Your task to perform on an android device: turn off smart reply in the gmail app Image 0: 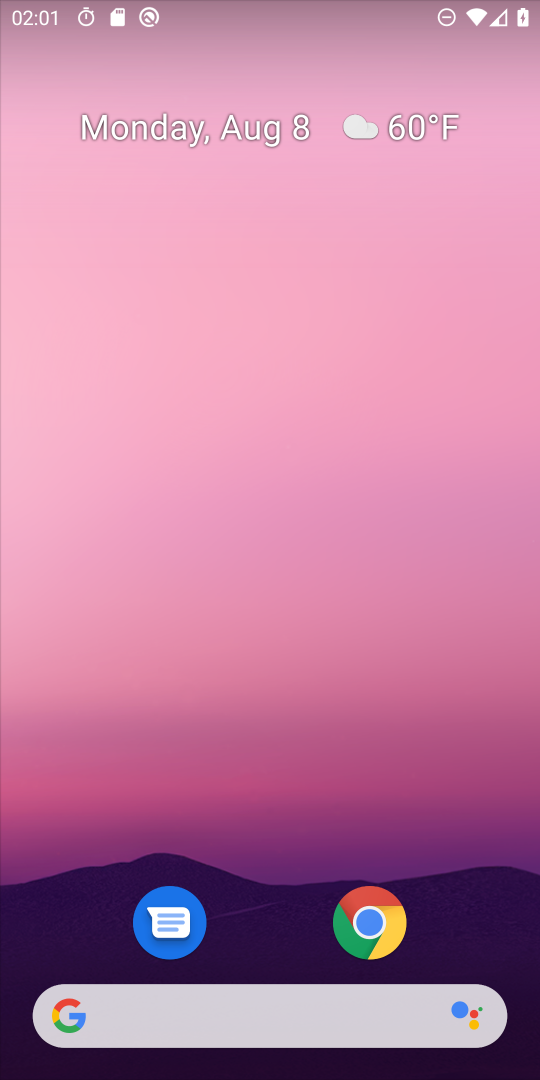
Step 0: drag from (392, 237) to (394, 84)
Your task to perform on an android device: turn off smart reply in the gmail app Image 1: 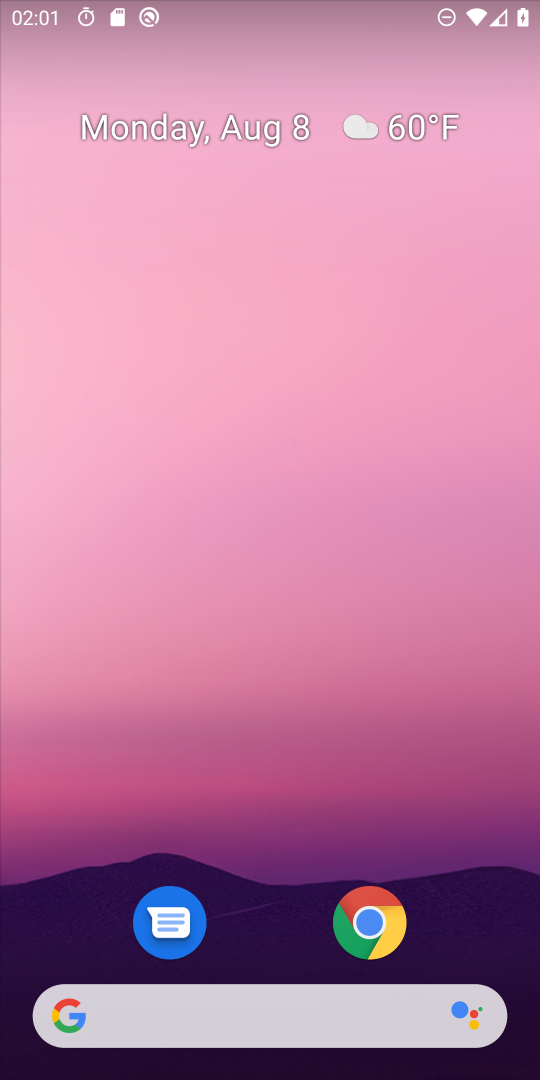
Step 1: drag from (431, 717) to (383, 165)
Your task to perform on an android device: turn off smart reply in the gmail app Image 2: 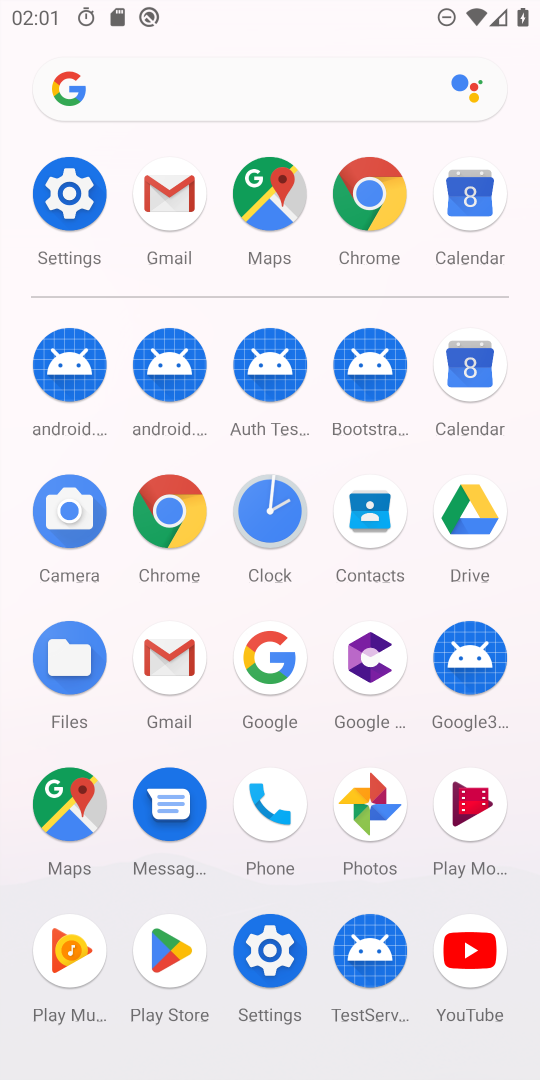
Step 2: click (176, 662)
Your task to perform on an android device: turn off smart reply in the gmail app Image 3: 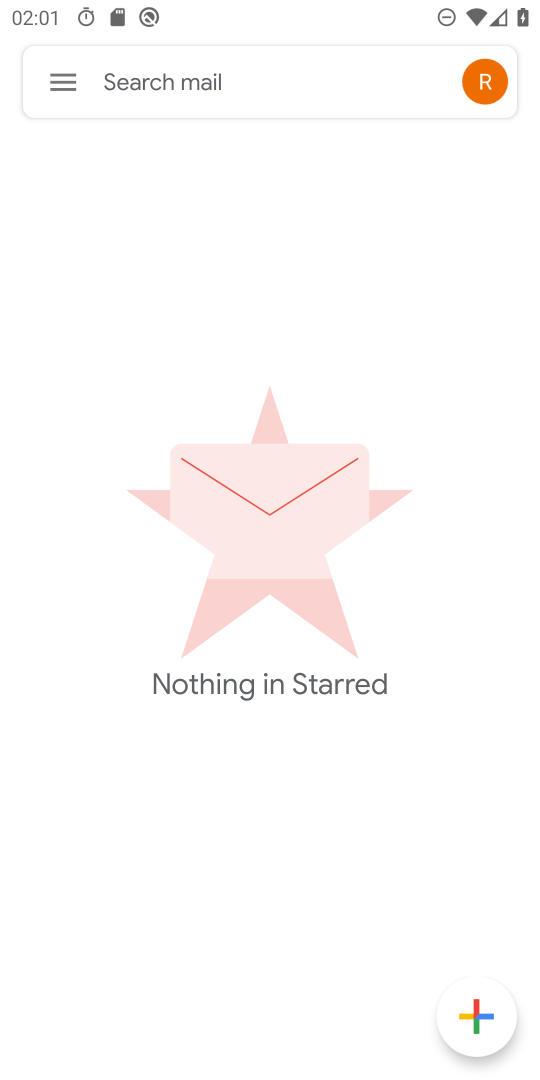
Step 3: click (52, 71)
Your task to perform on an android device: turn off smart reply in the gmail app Image 4: 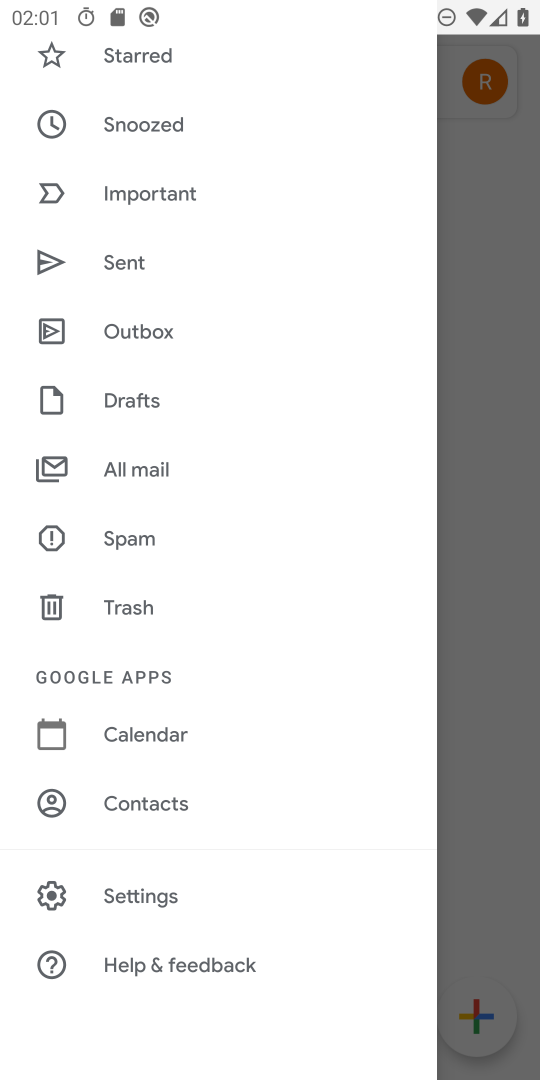
Step 4: click (148, 898)
Your task to perform on an android device: turn off smart reply in the gmail app Image 5: 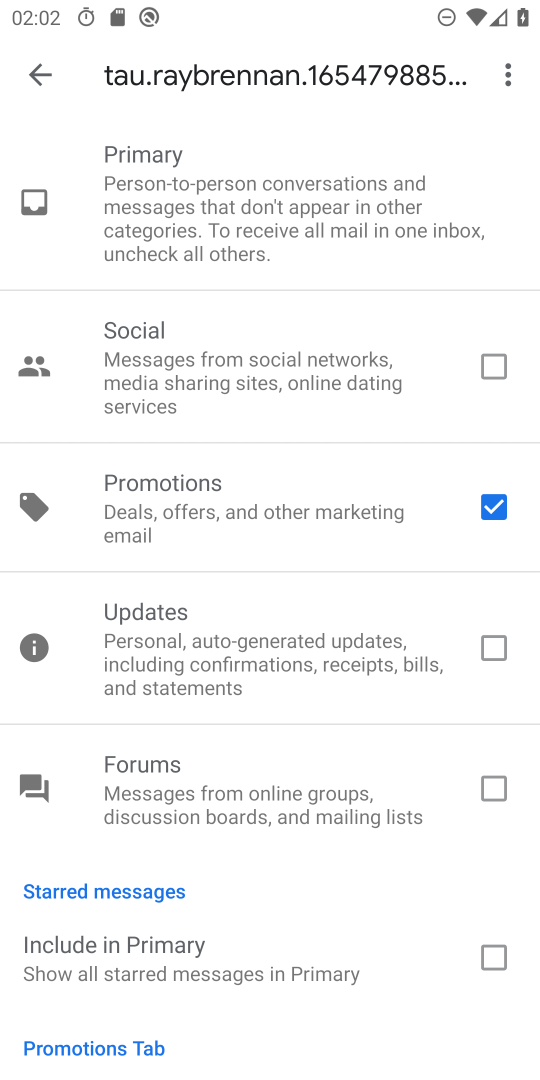
Step 5: drag from (339, 894) to (361, 218)
Your task to perform on an android device: turn off smart reply in the gmail app Image 6: 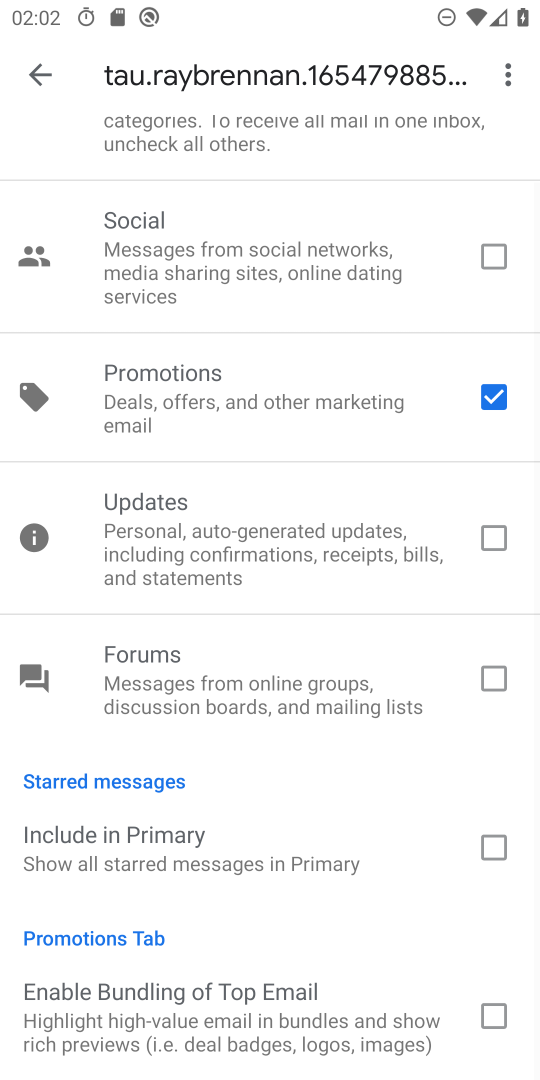
Step 6: click (52, 69)
Your task to perform on an android device: turn off smart reply in the gmail app Image 7: 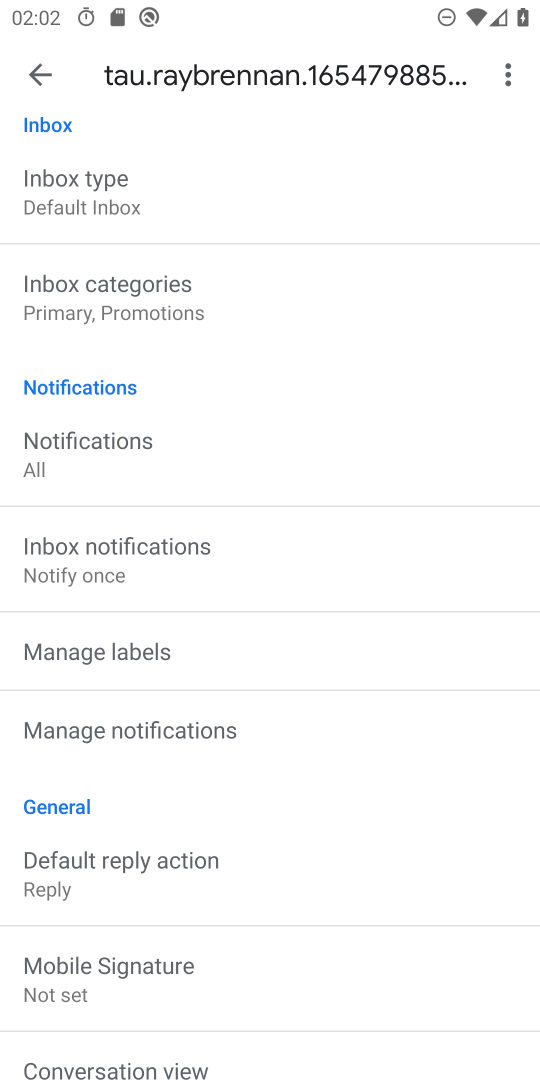
Step 7: drag from (368, 937) to (415, 235)
Your task to perform on an android device: turn off smart reply in the gmail app Image 8: 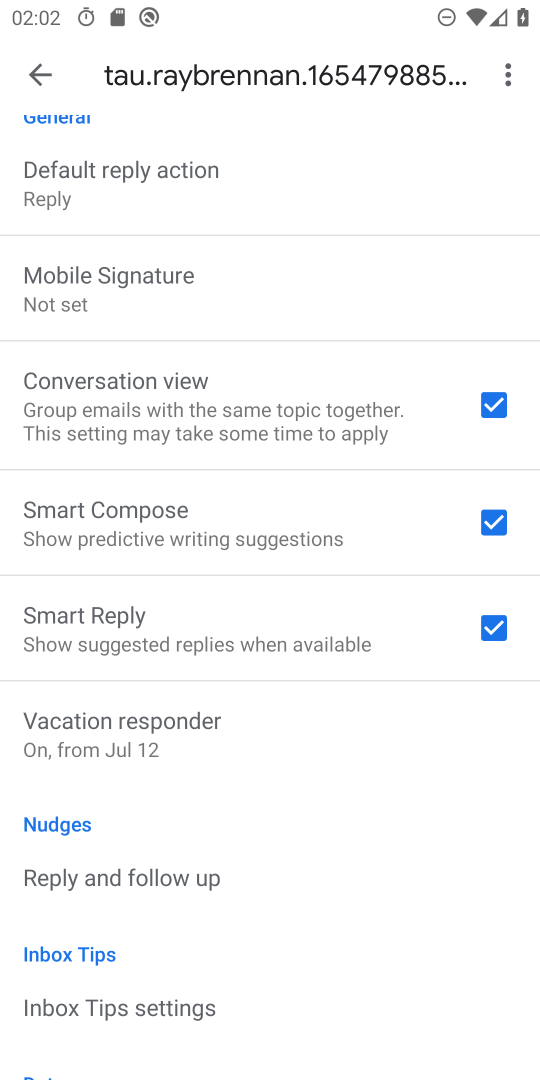
Step 8: click (495, 625)
Your task to perform on an android device: turn off smart reply in the gmail app Image 9: 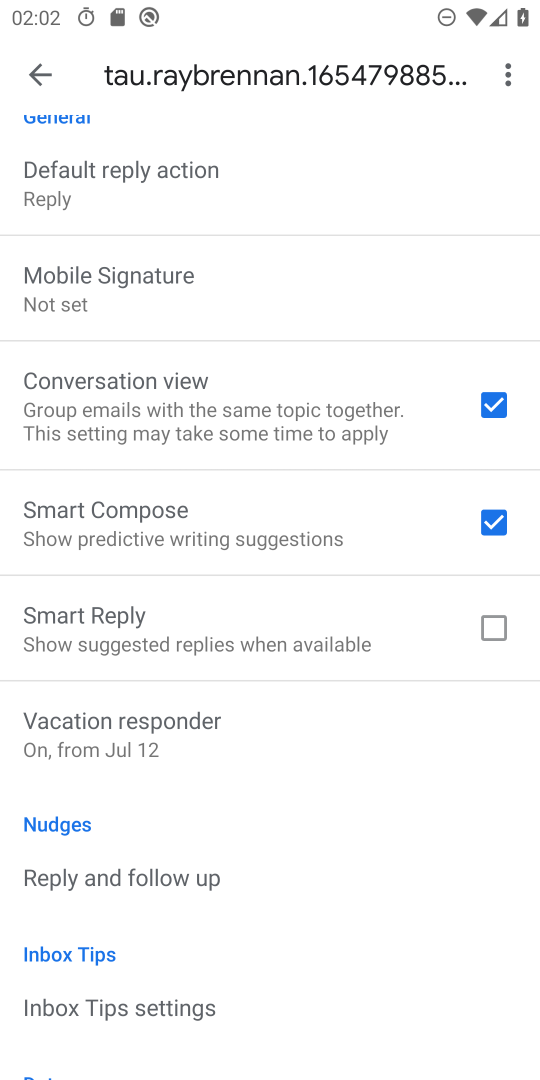
Step 9: task complete